Your task to perform on an android device: delete the emails in spam in the gmail app Image 0: 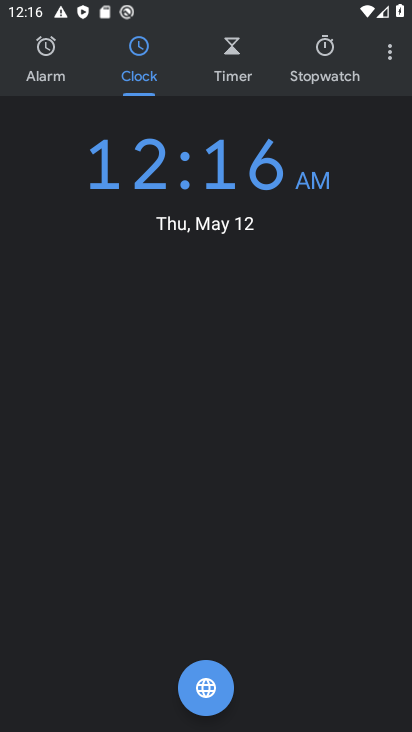
Step 0: press home button
Your task to perform on an android device: delete the emails in spam in the gmail app Image 1: 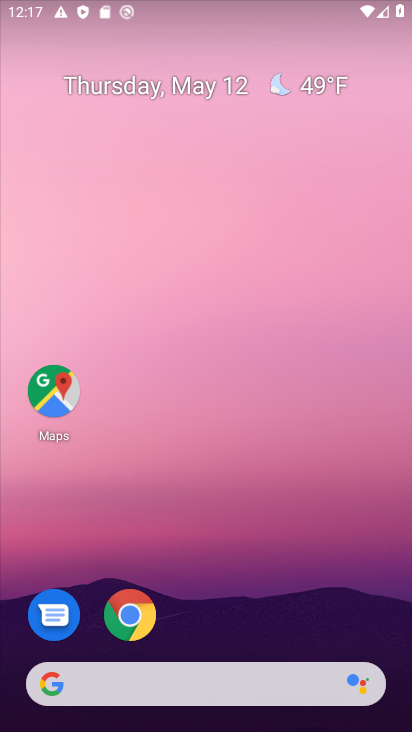
Step 1: drag from (243, 693) to (318, 140)
Your task to perform on an android device: delete the emails in spam in the gmail app Image 2: 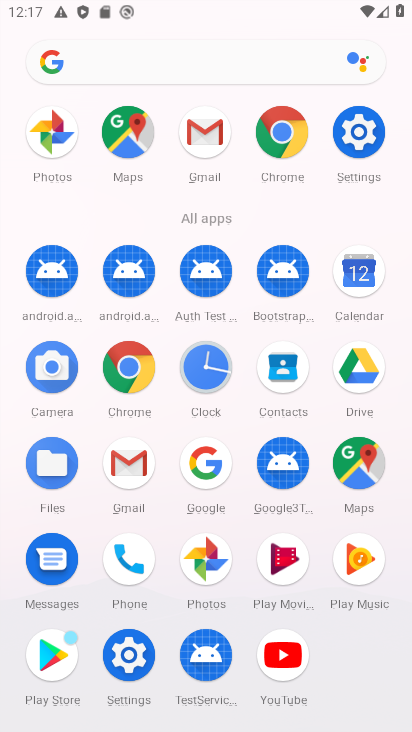
Step 2: click (110, 456)
Your task to perform on an android device: delete the emails in spam in the gmail app Image 3: 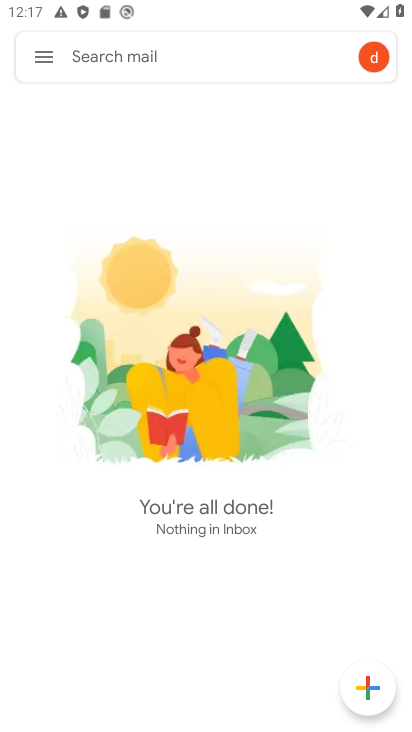
Step 3: click (44, 61)
Your task to perform on an android device: delete the emails in spam in the gmail app Image 4: 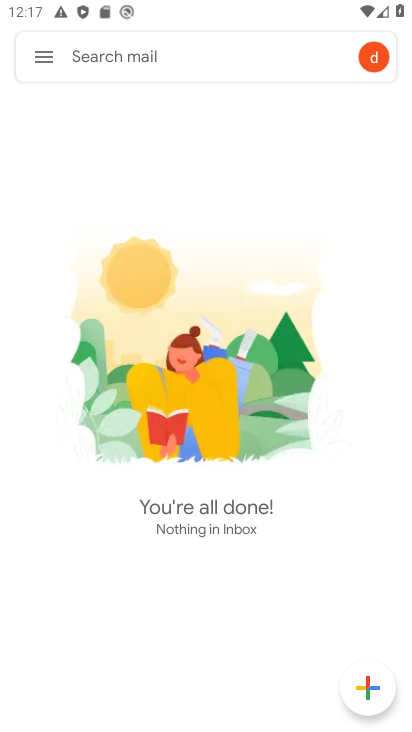
Step 4: click (52, 55)
Your task to perform on an android device: delete the emails in spam in the gmail app Image 5: 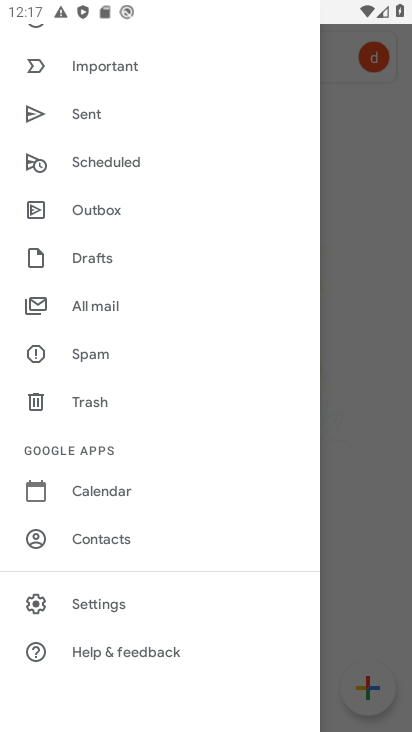
Step 5: click (82, 352)
Your task to perform on an android device: delete the emails in spam in the gmail app Image 6: 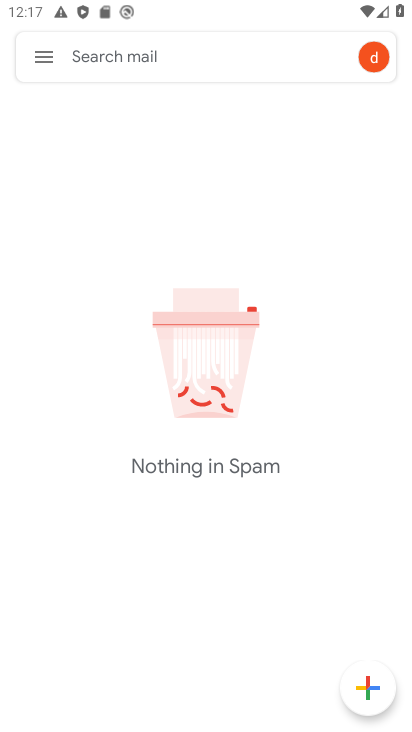
Step 6: task complete